Your task to perform on an android device: Go to Amazon Image 0: 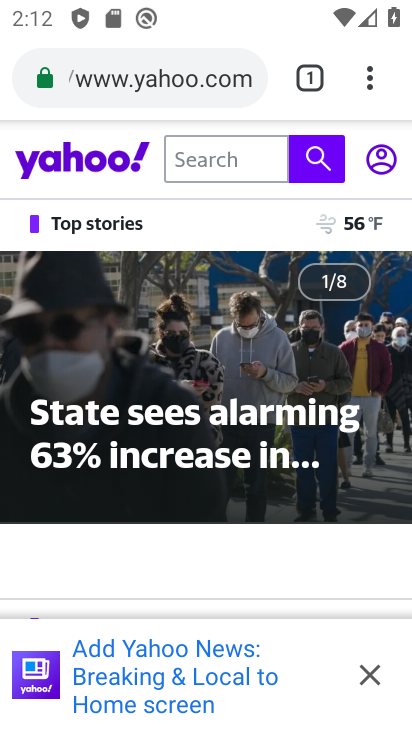
Step 0: click (209, 78)
Your task to perform on an android device: Go to Amazon Image 1: 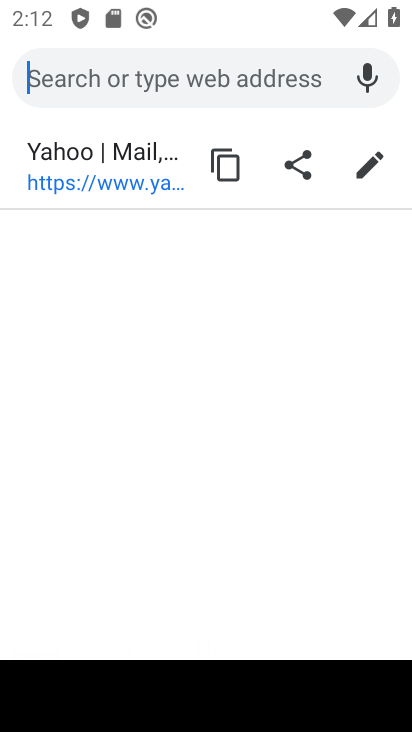
Step 1: type "Amazon"
Your task to perform on an android device: Go to Amazon Image 2: 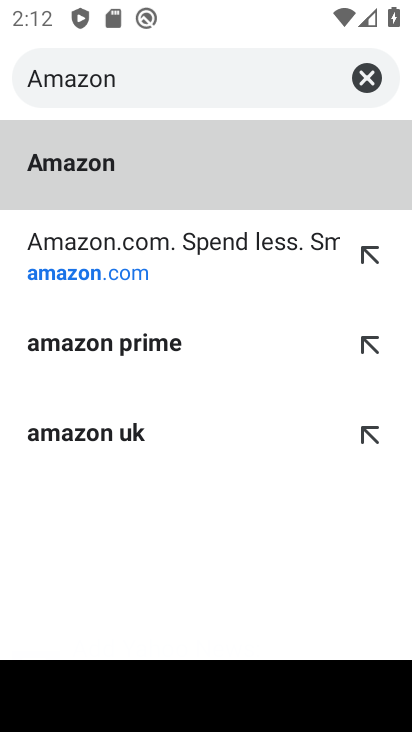
Step 2: click (93, 158)
Your task to perform on an android device: Go to Amazon Image 3: 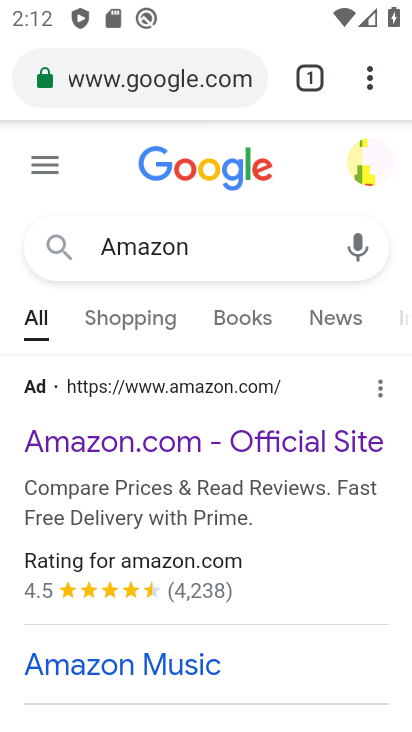
Step 3: click (123, 455)
Your task to perform on an android device: Go to Amazon Image 4: 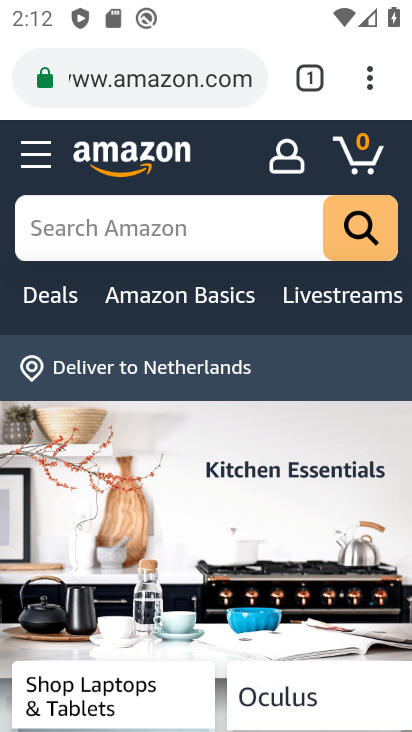
Step 4: task complete